Your task to perform on an android device: turn on notifications settings in the gmail app Image 0: 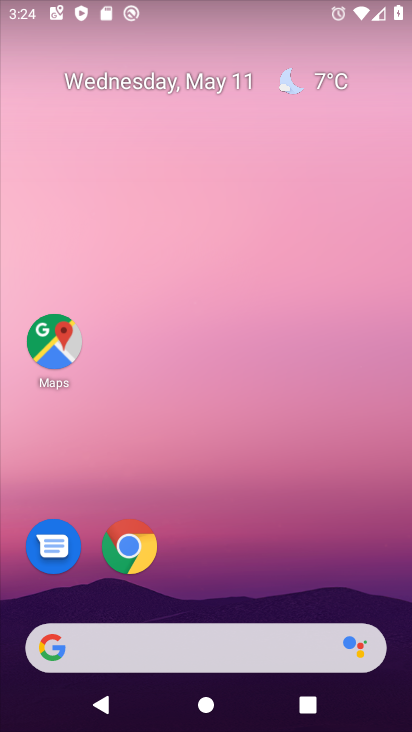
Step 0: drag from (287, 621) to (248, 130)
Your task to perform on an android device: turn on notifications settings in the gmail app Image 1: 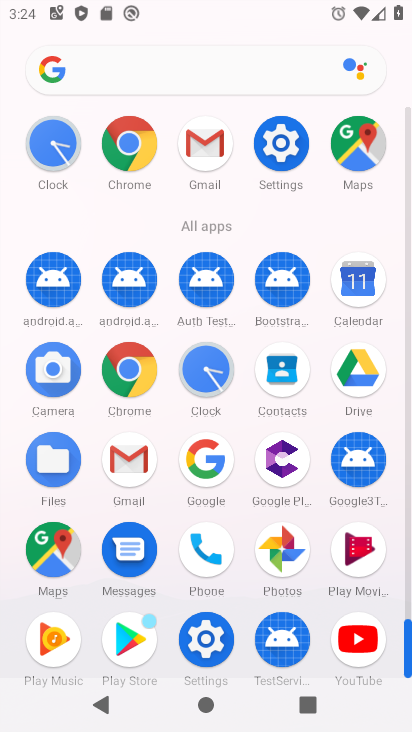
Step 1: click (143, 462)
Your task to perform on an android device: turn on notifications settings in the gmail app Image 2: 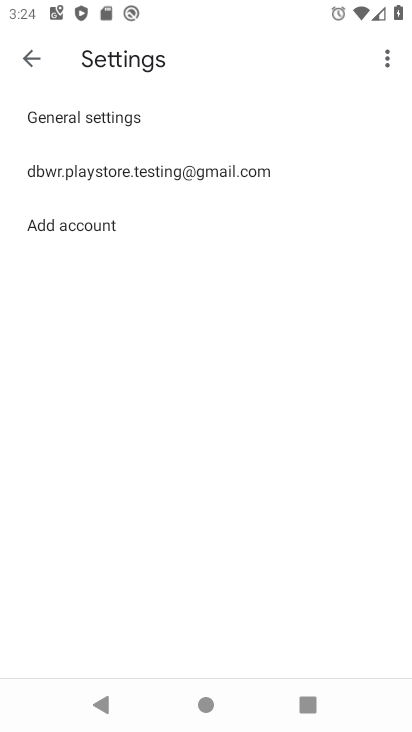
Step 2: click (214, 171)
Your task to perform on an android device: turn on notifications settings in the gmail app Image 3: 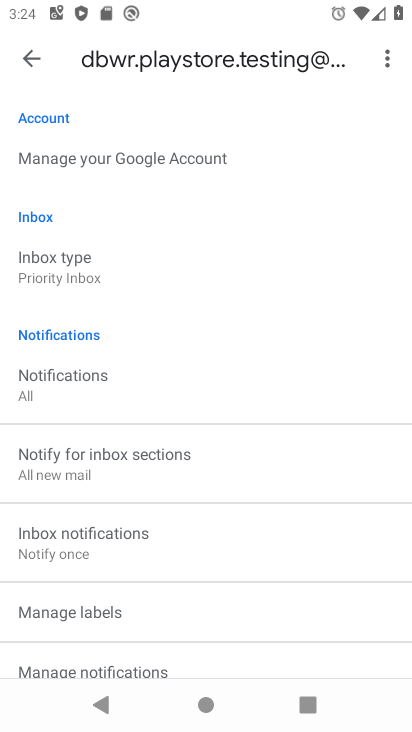
Step 3: drag from (133, 618) to (146, 309)
Your task to perform on an android device: turn on notifications settings in the gmail app Image 4: 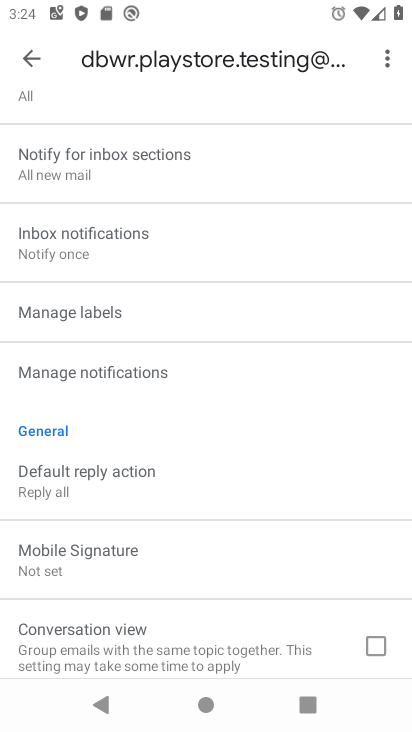
Step 4: click (139, 375)
Your task to perform on an android device: turn on notifications settings in the gmail app Image 5: 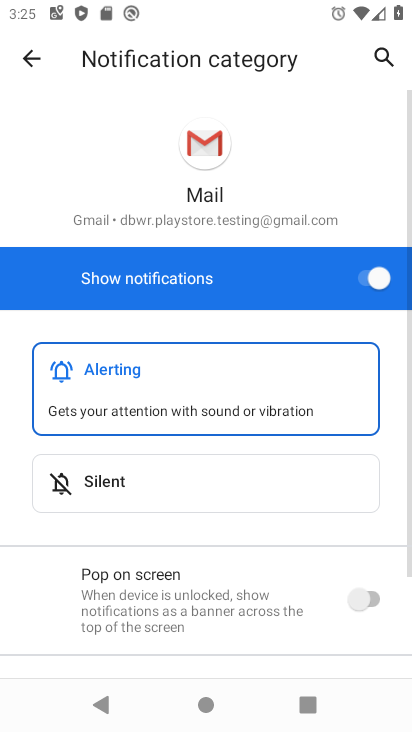
Step 5: task complete